Your task to perform on an android device: find photos in the google photos app Image 0: 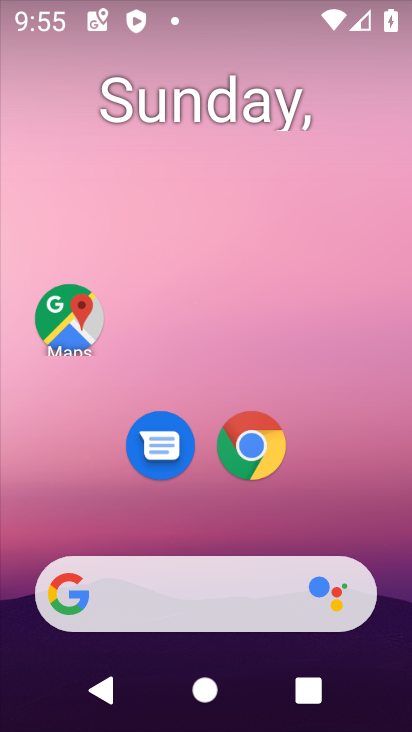
Step 0: press home button
Your task to perform on an android device: find photos in the google photos app Image 1: 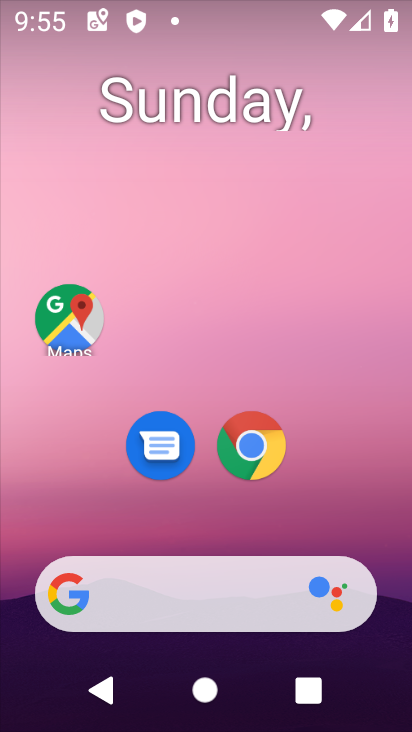
Step 1: drag from (340, 496) to (352, 74)
Your task to perform on an android device: find photos in the google photos app Image 2: 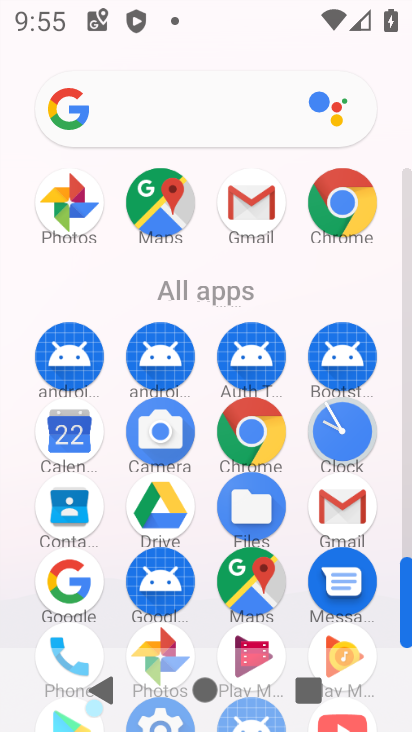
Step 2: drag from (404, 616) to (332, 714)
Your task to perform on an android device: find photos in the google photos app Image 3: 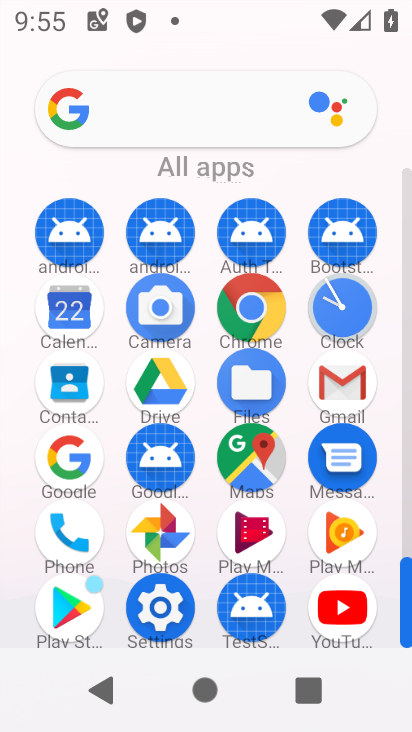
Step 3: click (164, 539)
Your task to perform on an android device: find photos in the google photos app Image 4: 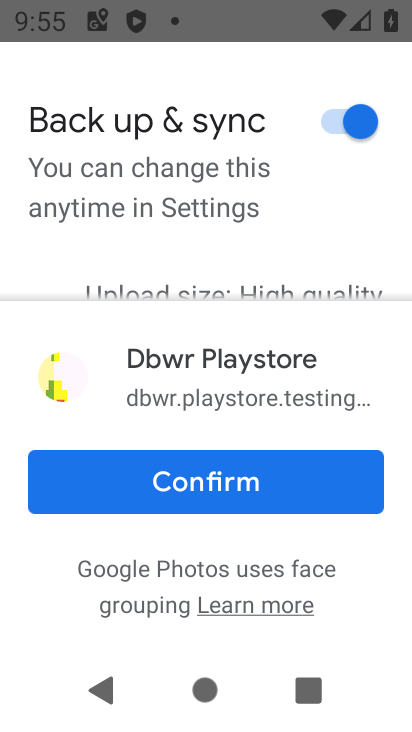
Step 4: press back button
Your task to perform on an android device: find photos in the google photos app Image 5: 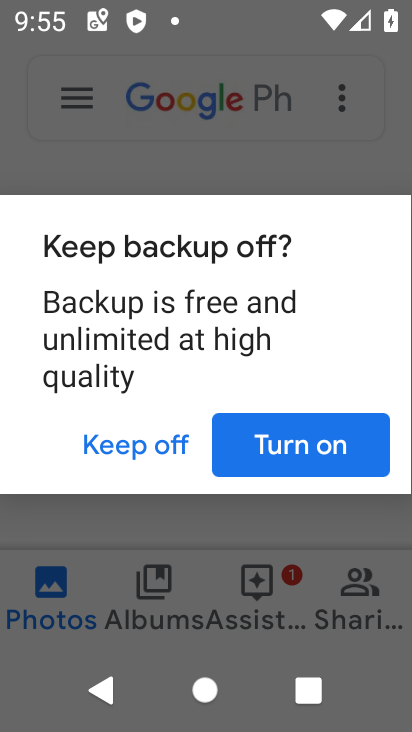
Step 5: click (256, 447)
Your task to perform on an android device: find photos in the google photos app Image 6: 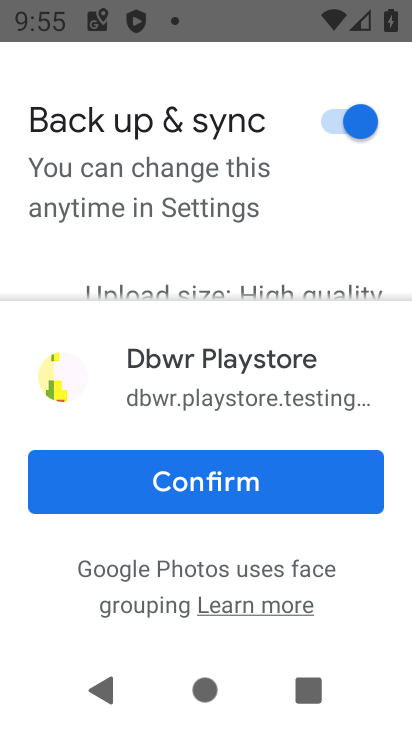
Step 6: click (190, 482)
Your task to perform on an android device: find photos in the google photos app Image 7: 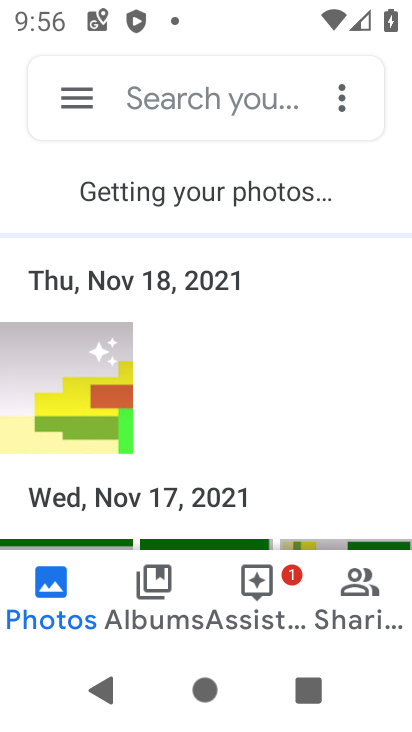
Step 7: task complete